Your task to perform on an android device: manage bookmarks in the chrome app Image 0: 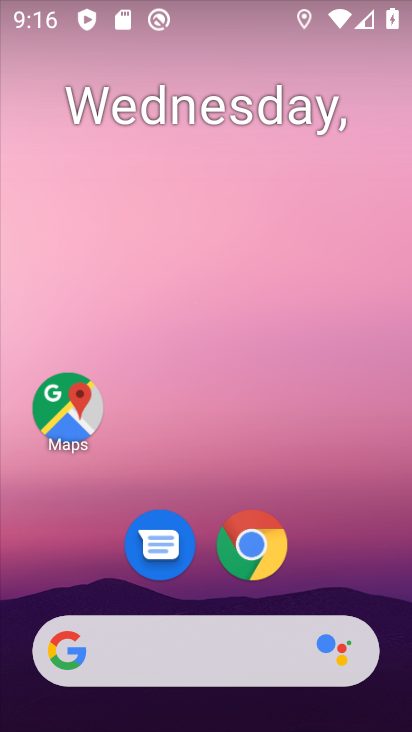
Step 0: drag from (248, 559) to (301, 286)
Your task to perform on an android device: manage bookmarks in the chrome app Image 1: 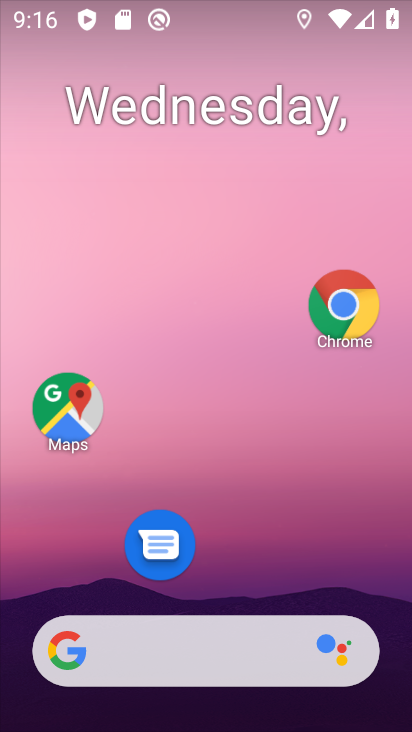
Step 1: click (351, 319)
Your task to perform on an android device: manage bookmarks in the chrome app Image 2: 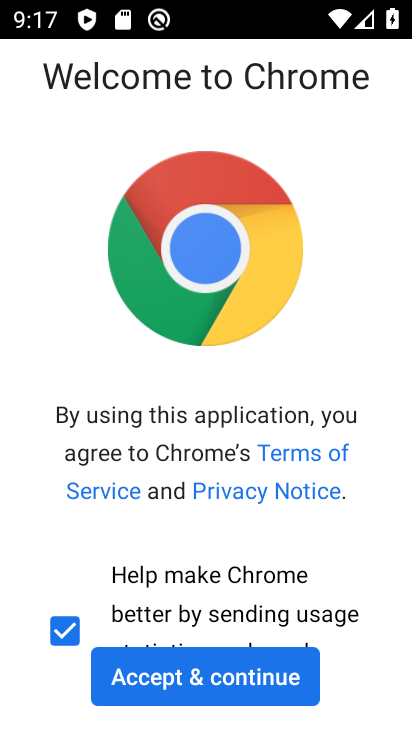
Step 2: click (217, 696)
Your task to perform on an android device: manage bookmarks in the chrome app Image 3: 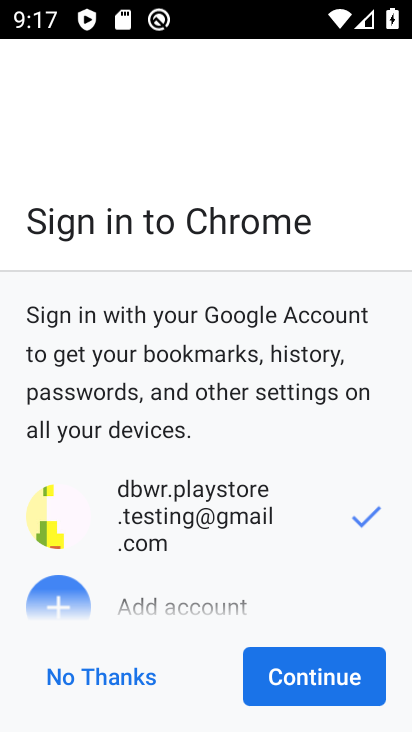
Step 3: click (256, 684)
Your task to perform on an android device: manage bookmarks in the chrome app Image 4: 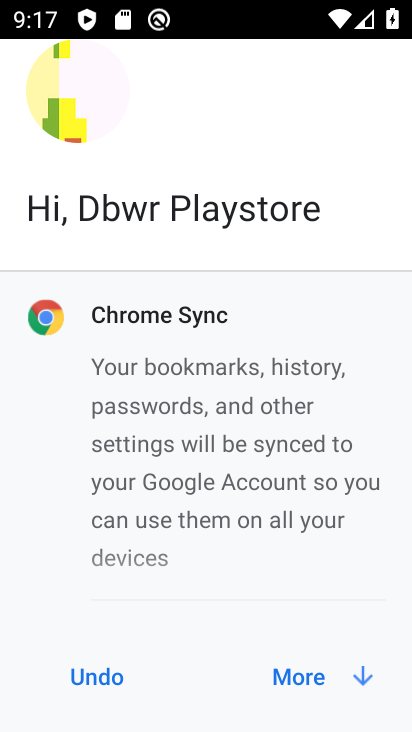
Step 4: click (282, 678)
Your task to perform on an android device: manage bookmarks in the chrome app Image 5: 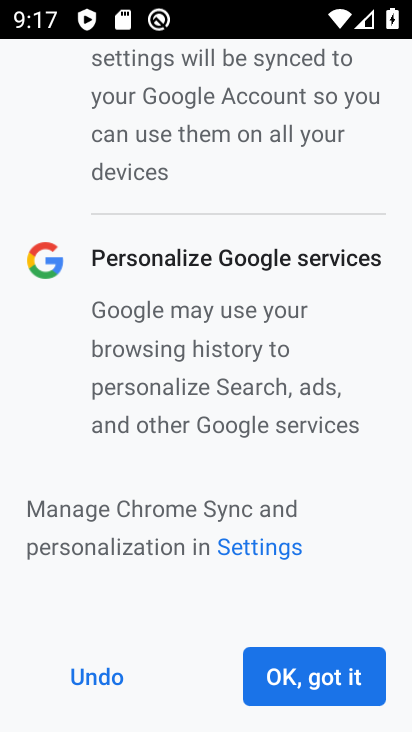
Step 5: click (282, 678)
Your task to perform on an android device: manage bookmarks in the chrome app Image 6: 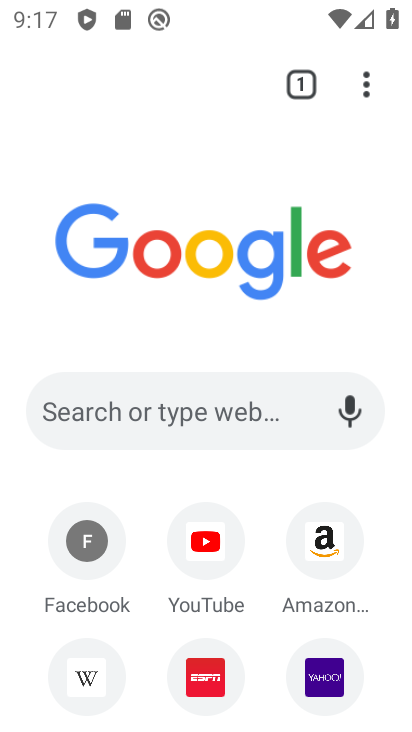
Step 6: click (361, 91)
Your task to perform on an android device: manage bookmarks in the chrome app Image 7: 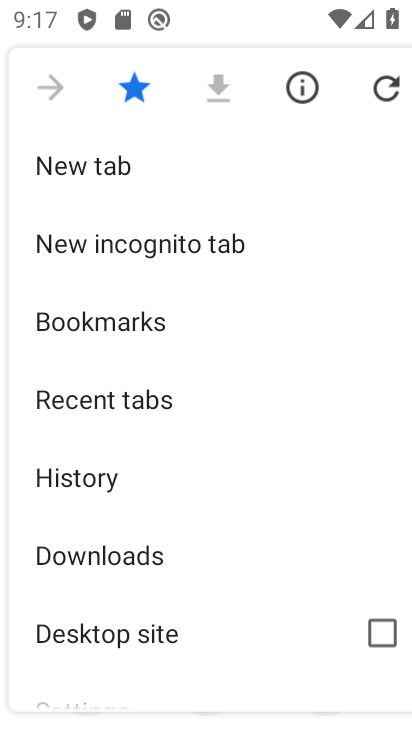
Step 7: click (167, 333)
Your task to perform on an android device: manage bookmarks in the chrome app Image 8: 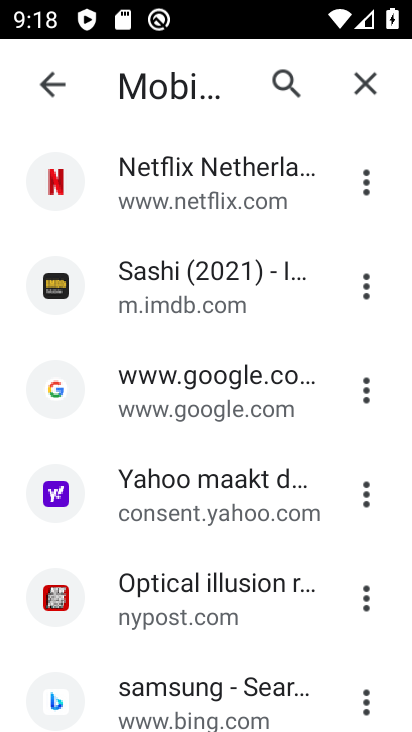
Step 8: task complete